Your task to perform on an android device: Clear the shopping cart on walmart.com. Add usb-b to the cart on walmart.com, then select checkout. Image 0: 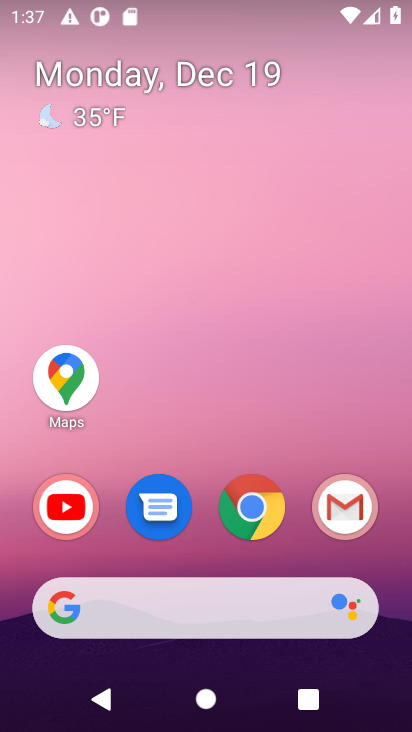
Step 0: click (245, 509)
Your task to perform on an android device: Clear the shopping cart on walmart.com. Add usb-b to the cart on walmart.com, then select checkout. Image 1: 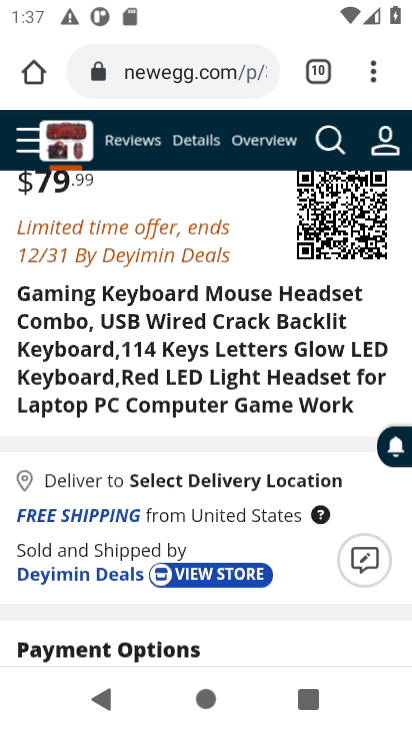
Step 1: click (162, 70)
Your task to perform on an android device: Clear the shopping cart on walmart.com. Add usb-b to the cart on walmart.com, then select checkout. Image 2: 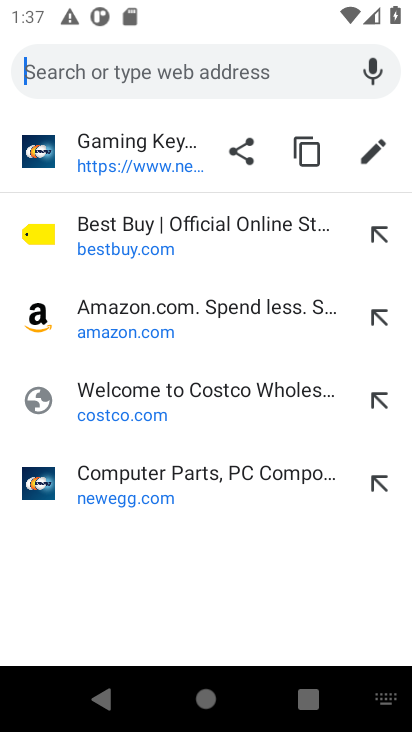
Step 2: type "walmart.com"
Your task to perform on an android device: Clear the shopping cart on walmart.com. Add usb-b to the cart on walmart.com, then select checkout. Image 3: 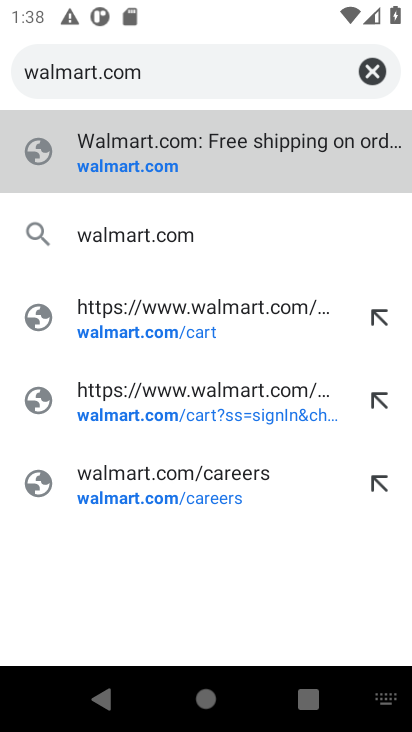
Step 3: click (130, 162)
Your task to perform on an android device: Clear the shopping cart on walmart.com. Add usb-b to the cart on walmart.com, then select checkout. Image 4: 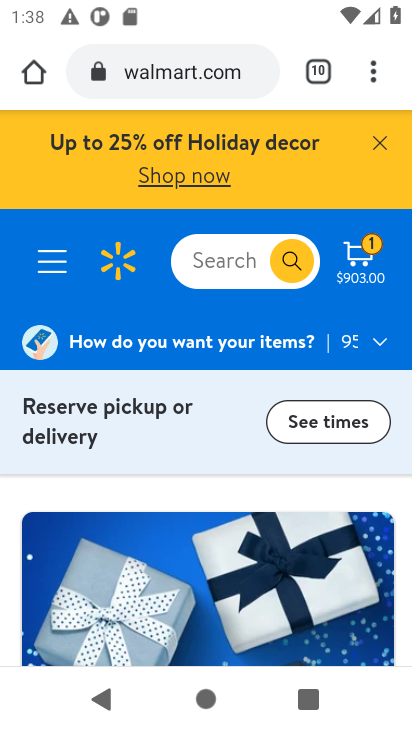
Step 4: drag from (186, 473) to (186, 322)
Your task to perform on an android device: Clear the shopping cart on walmart.com. Add usb-b to the cart on walmart.com, then select checkout. Image 5: 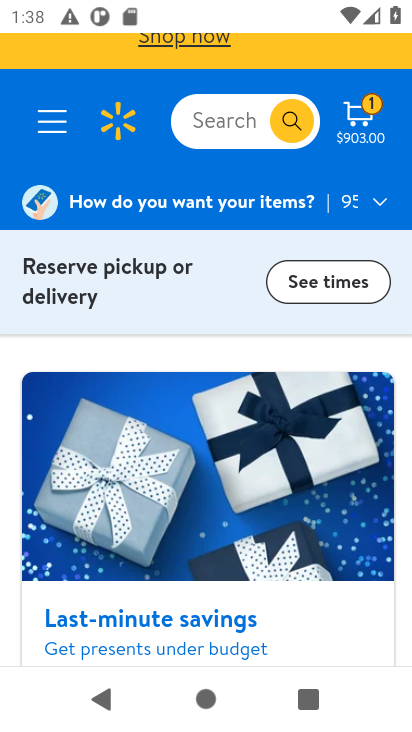
Step 5: drag from (186, 322) to (186, 553)
Your task to perform on an android device: Clear the shopping cart on walmart.com. Add usb-b to the cart on walmart.com, then select checkout. Image 6: 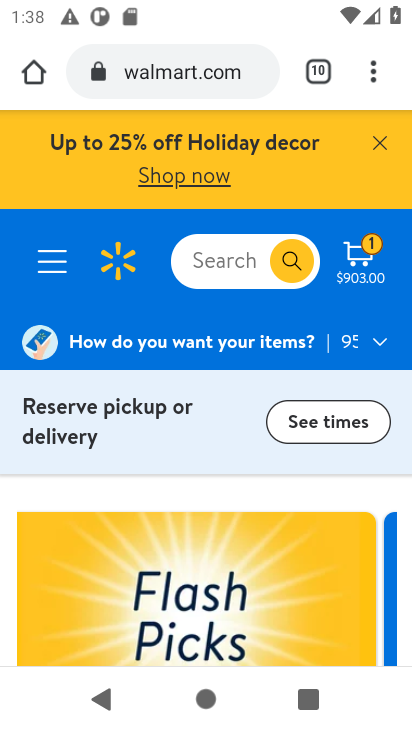
Step 6: click (373, 257)
Your task to perform on an android device: Clear the shopping cart on walmart.com. Add usb-b to the cart on walmart.com, then select checkout. Image 7: 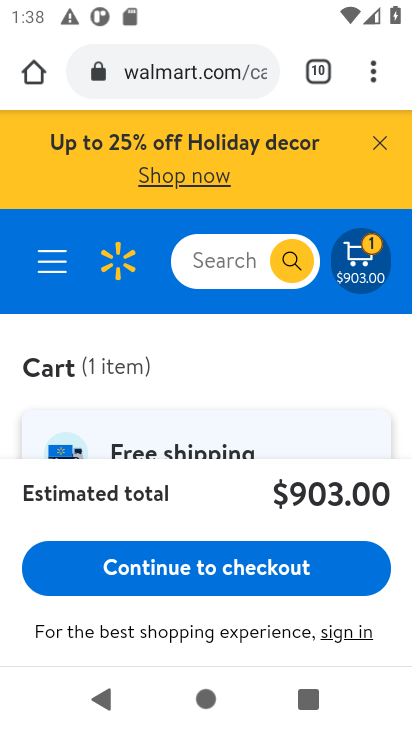
Step 7: drag from (135, 490) to (109, 122)
Your task to perform on an android device: Clear the shopping cart on walmart.com. Add usb-b to the cart on walmart.com, then select checkout. Image 8: 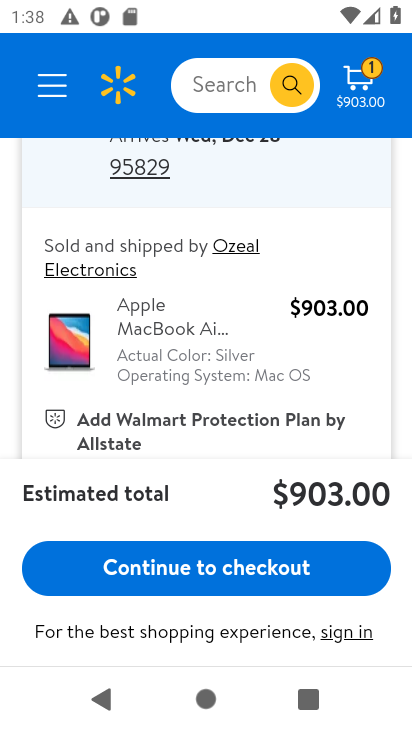
Step 8: drag from (173, 345) to (176, 206)
Your task to perform on an android device: Clear the shopping cart on walmart.com. Add usb-b to the cart on walmart.com, then select checkout. Image 9: 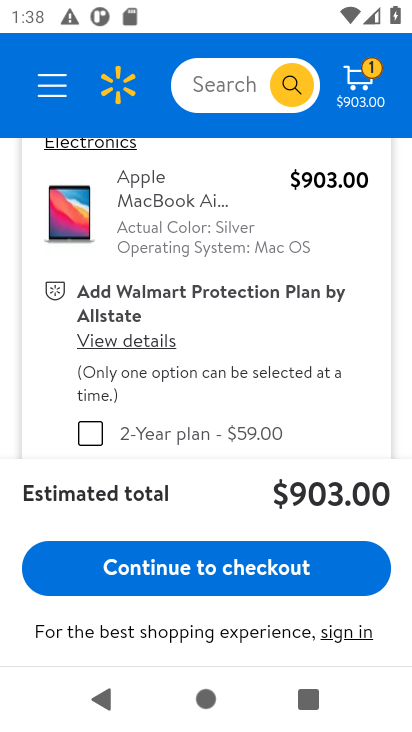
Step 9: drag from (163, 362) to (137, 124)
Your task to perform on an android device: Clear the shopping cart on walmart.com. Add usb-b to the cart on walmart.com, then select checkout. Image 10: 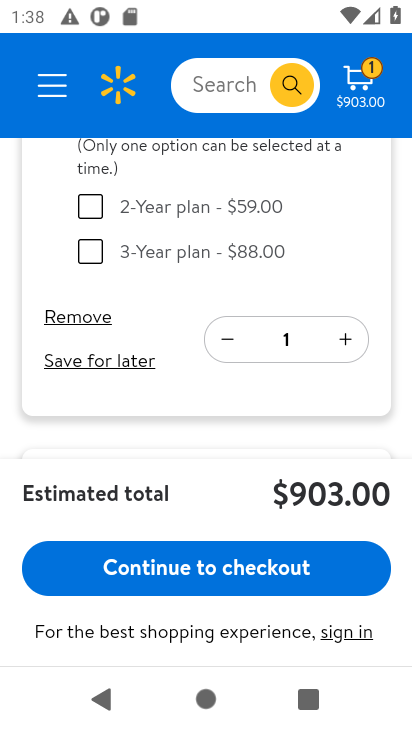
Step 10: click (79, 318)
Your task to perform on an android device: Clear the shopping cart on walmart.com. Add usb-b to the cart on walmart.com, then select checkout. Image 11: 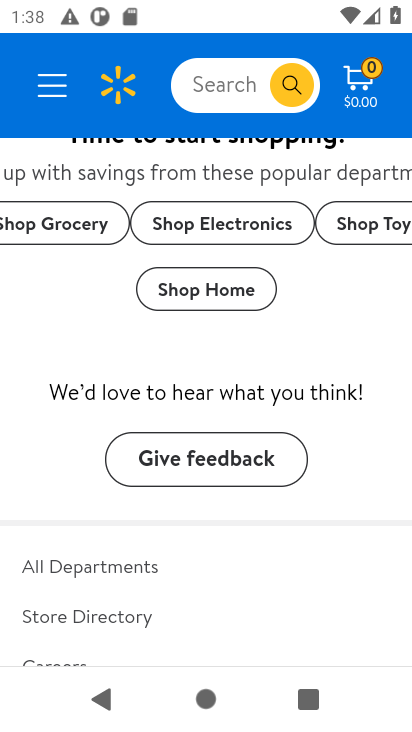
Step 11: drag from (144, 307) to (95, 578)
Your task to perform on an android device: Clear the shopping cart on walmart.com. Add usb-b to the cart on walmart.com, then select checkout. Image 12: 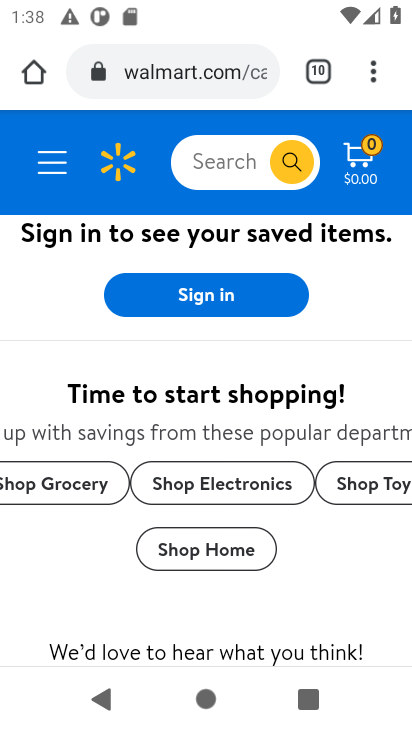
Step 12: click (210, 161)
Your task to perform on an android device: Clear the shopping cart on walmart.com. Add usb-b to the cart on walmart.com, then select checkout. Image 13: 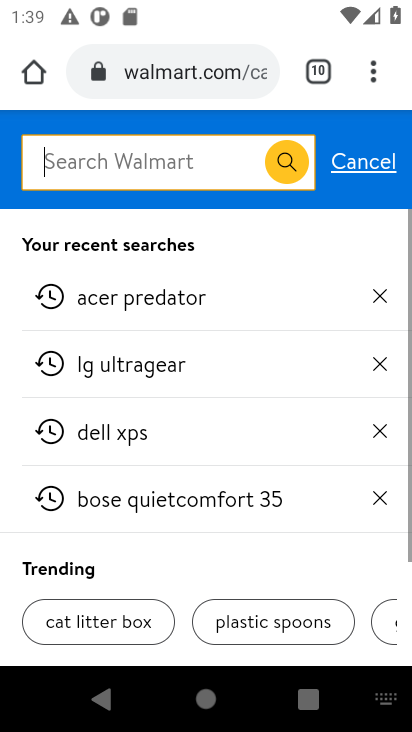
Step 13: type "usb-b"
Your task to perform on an android device: Clear the shopping cart on walmart.com. Add usb-b to the cart on walmart.com, then select checkout. Image 14: 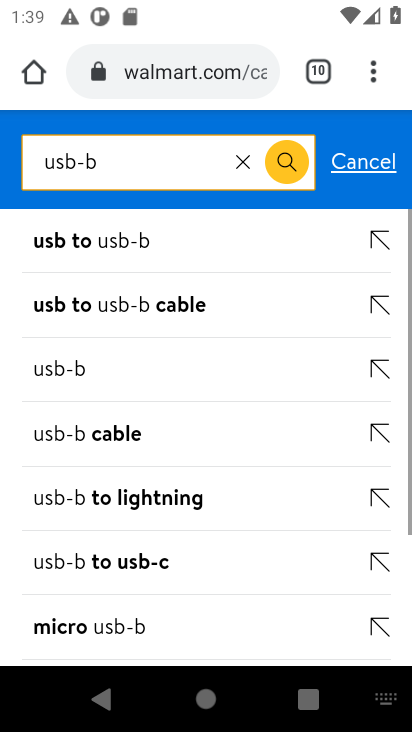
Step 14: click (58, 369)
Your task to perform on an android device: Clear the shopping cart on walmart.com. Add usb-b to the cart on walmart.com, then select checkout. Image 15: 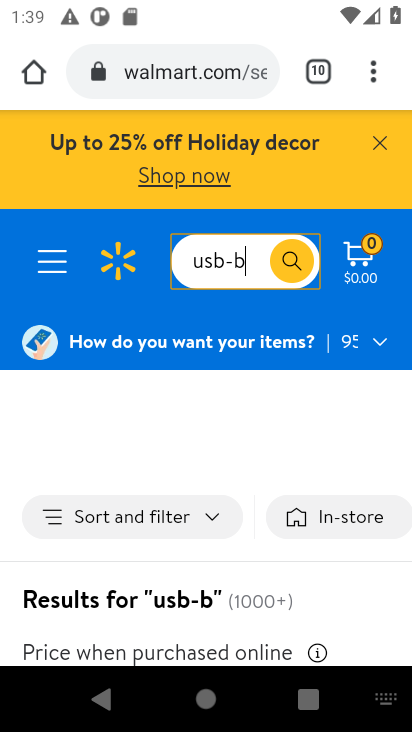
Step 15: drag from (166, 460) to (168, 96)
Your task to perform on an android device: Clear the shopping cart on walmart.com. Add usb-b to the cart on walmart.com, then select checkout. Image 16: 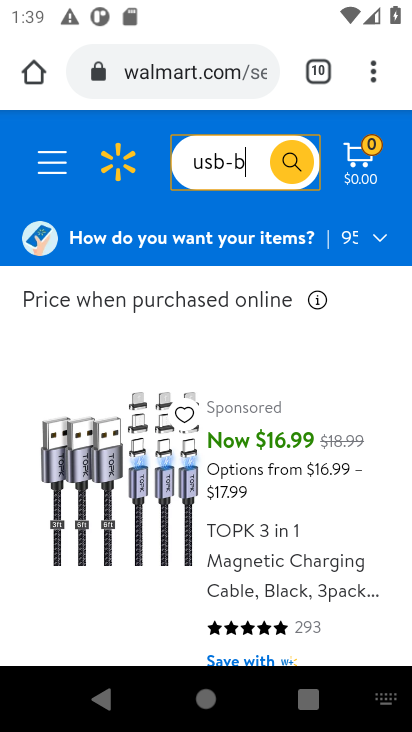
Step 16: drag from (144, 453) to (141, 277)
Your task to perform on an android device: Clear the shopping cart on walmart.com. Add usb-b to the cart on walmart.com, then select checkout. Image 17: 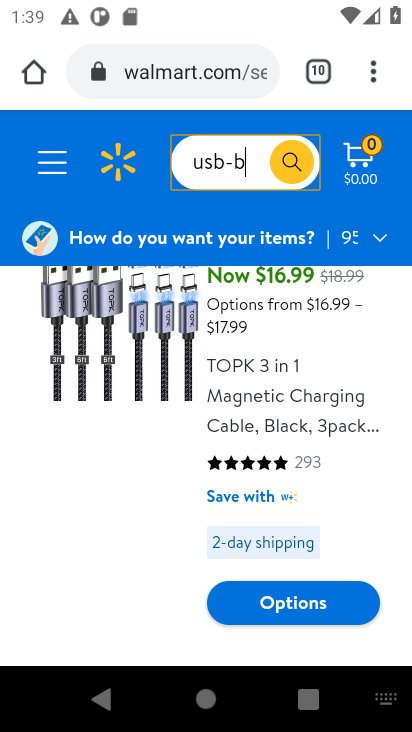
Step 17: drag from (94, 479) to (94, 233)
Your task to perform on an android device: Clear the shopping cart on walmart.com. Add usb-b to the cart on walmart.com, then select checkout. Image 18: 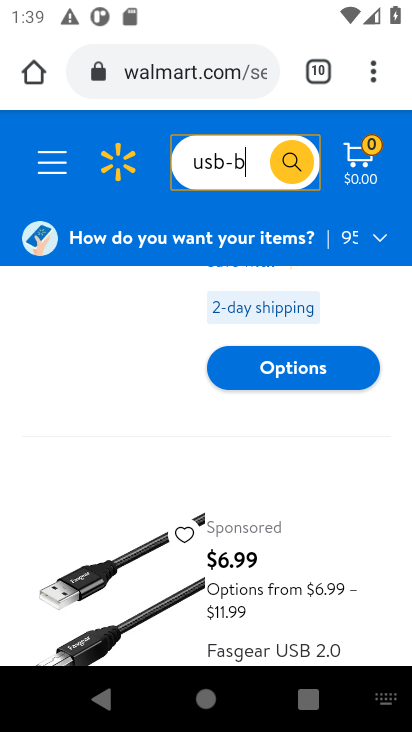
Step 18: drag from (104, 540) to (101, 275)
Your task to perform on an android device: Clear the shopping cart on walmart.com. Add usb-b to the cart on walmart.com, then select checkout. Image 19: 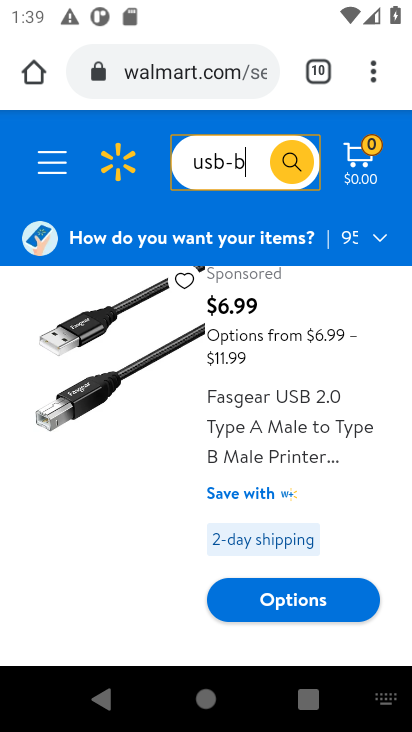
Step 19: drag from (86, 486) to (62, 265)
Your task to perform on an android device: Clear the shopping cart on walmart.com. Add usb-b to the cart on walmart.com, then select checkout. Image 20: 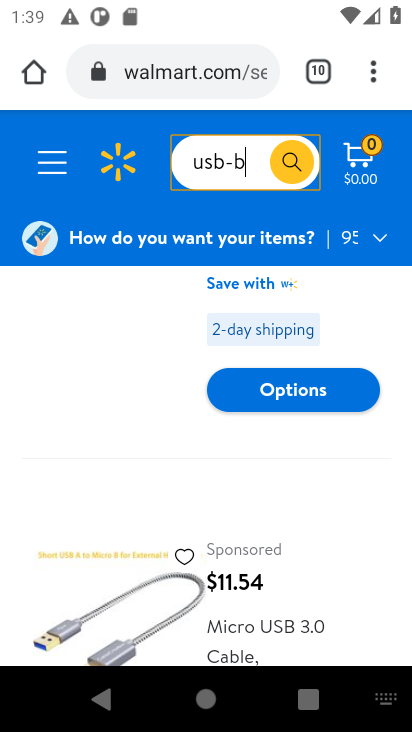
Step 20: drag from (57, 506) to (77, 287)
Your task to perform on an android device: Clear the shopping cart on walmart.com. Add usb-b to the cart on walmart.com, then select checkout. Image 21: 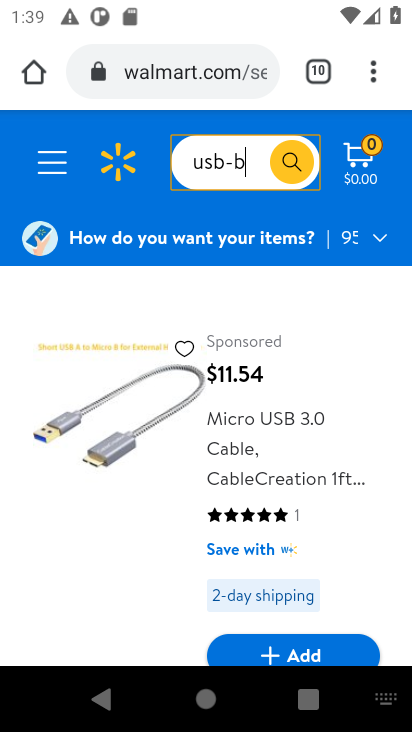
Step 21: drag from (67, 514) to (57, 224)
Your task to perform on an android device: Clear the shopping cart on walmart.com. Add usb-b to the cart on walmart.com, then select checkout. Image 22: 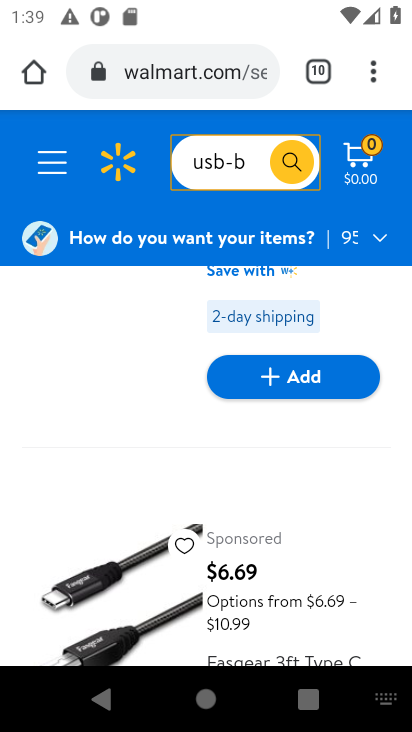
Step 22: drag from (62, 461) to (60, 191)
Your task to perform on an android device: Clear the shopping cart on walmart.com. Add usb-b to the cart on walmart.com, then select checkout. Image 23: 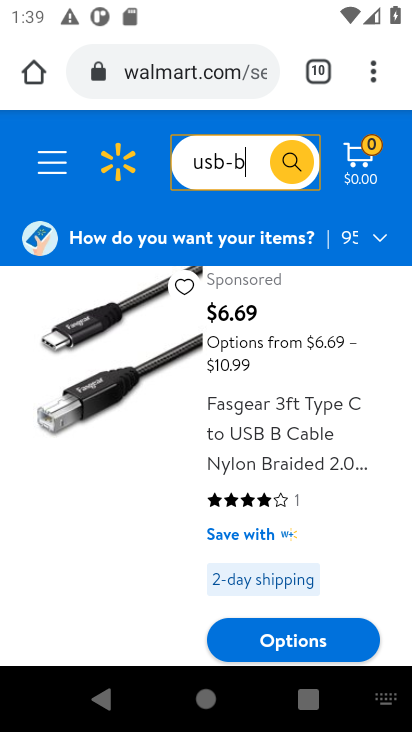
Step 23: click (258, 420)
Your task to perform on an android device: Clear the shopping cart on walmart.com. Add usb-b to the cart on walmart.com, then select checkout. Image 24: 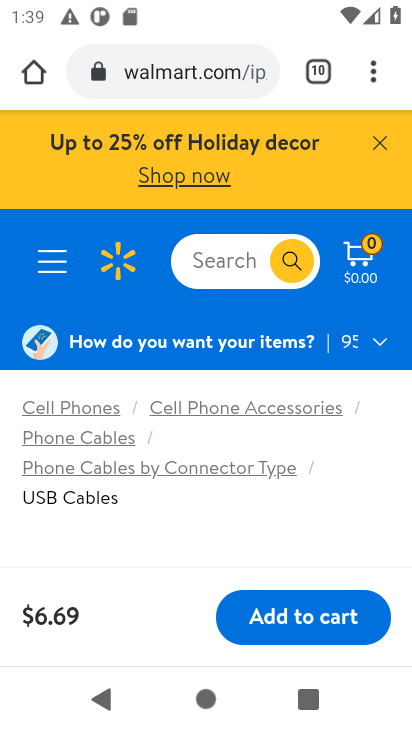
Step 24: click (302, 627)
Your task to perform on an android device: Clear the shopping cart on walmart.com. Add usb-b to the cart on walmart.com, then select checkout. Image 25: 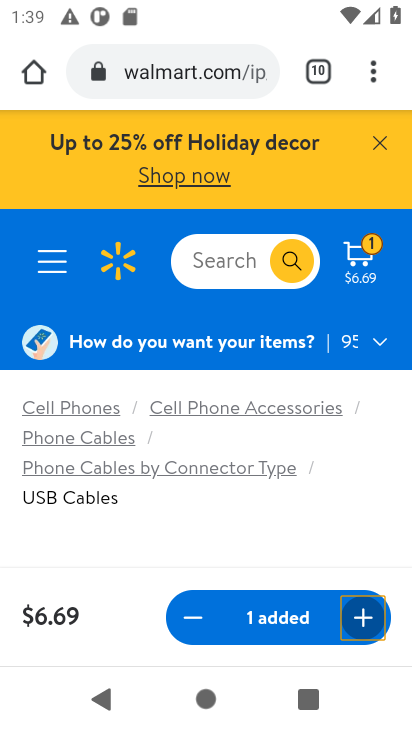
Step 25: click (371, 271)
Your task to perform on an android device: Clear the shopping cart on walmart.com. Add usb-b to the cart on walmart.com, then select checkout. Image 26: 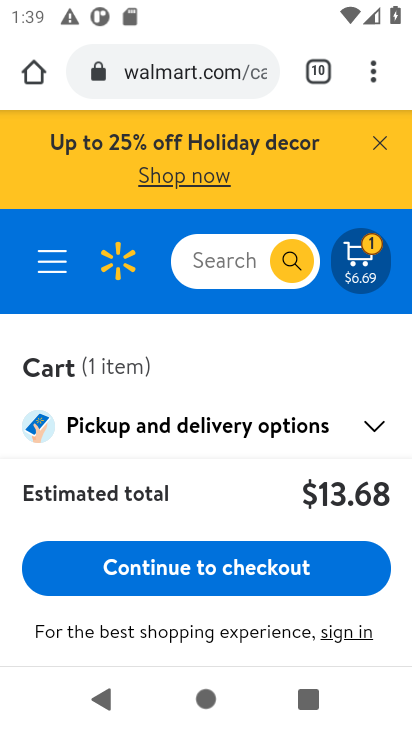
Step 26: click (237, 562)
Your task to perform on an android device: Clear the shopping cart on walmart.com. Add usb-b to the cart on walmart.com, then select checkout. Image 27: 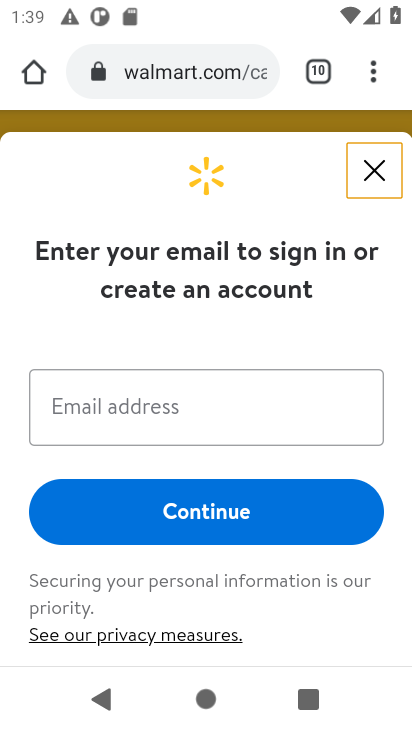
Step 27: task complete